Your task to perform on an android device: turn on translation in the chrome app Image 0: 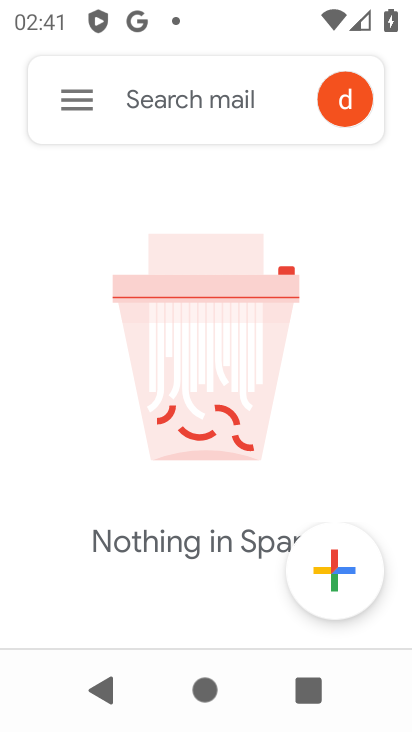
Step 0: press home button
Your task to perform on an android device: turn on translation in the chrome app Image 1: 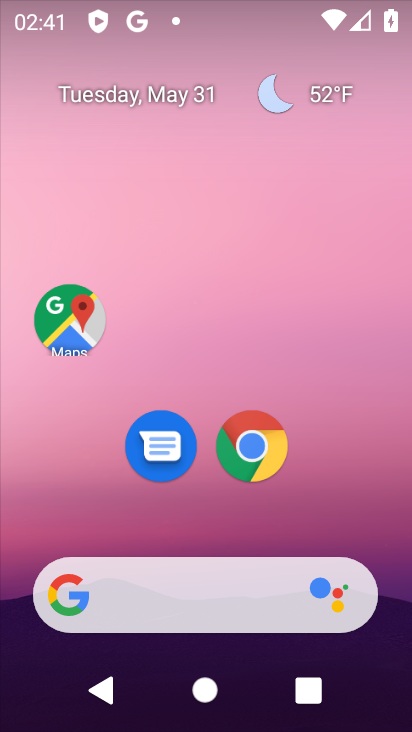
Step 1: click (250, 450)
Your task to perform on an android device: turn on translation in the chrome app Image 2: 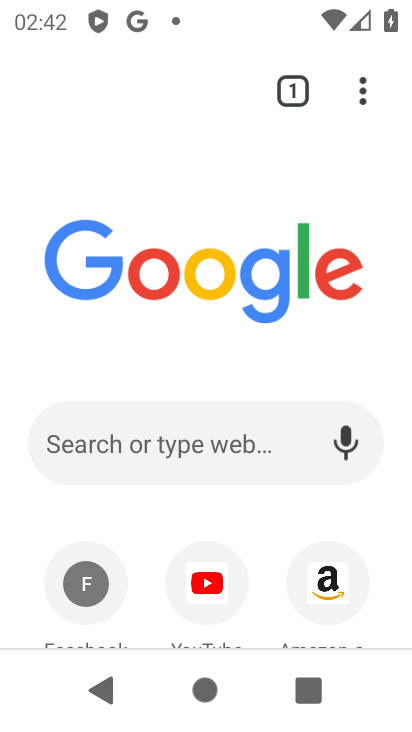
Step 2: click (362, 84)
Your task to perform on an android device: turn on translation in the chrome app Image 3: 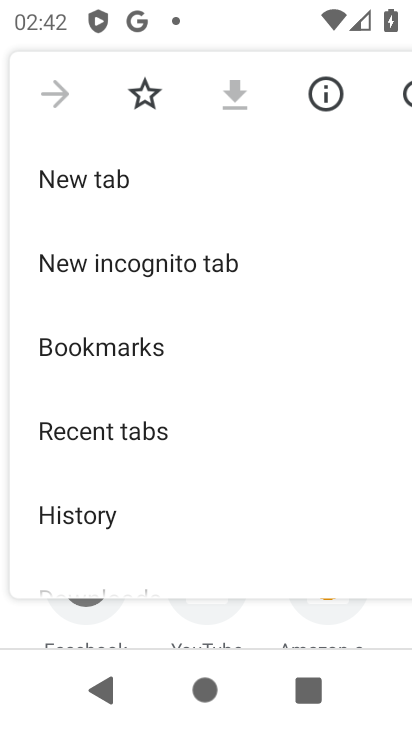
Step 3: drag from (113, 397) to (182, 316)
Your task to perform on an android device: turn on translation in the chrome app Image 4: 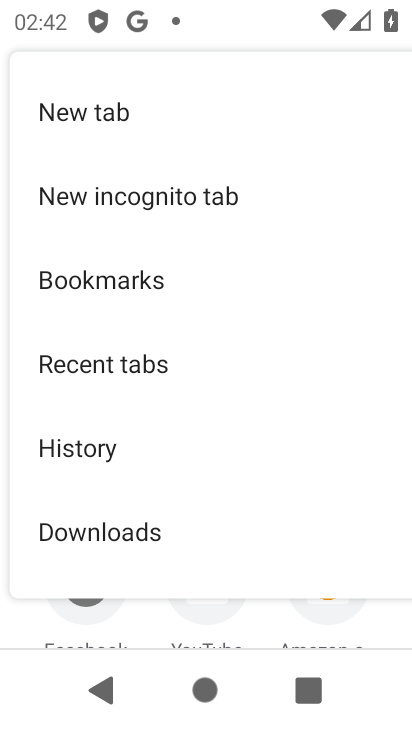
Step 4: drag from (110, 476) to (164, 409)
Your task to perform on an android device: turn on translation in the chrome app Image 5: 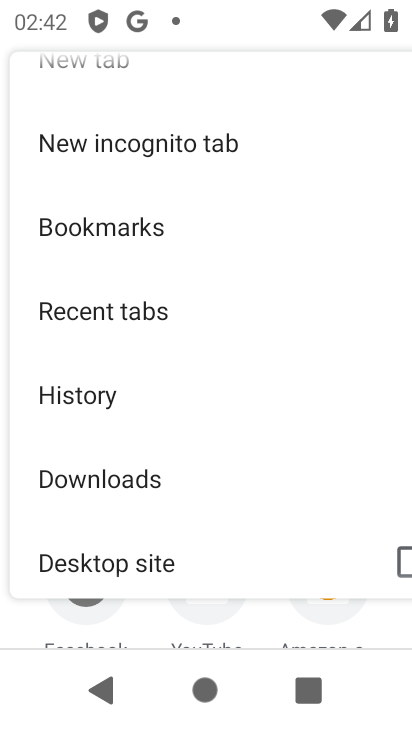
Step 5: drag from (104, 538) to (195, 433)
Your task to perform on an android device: turn on translation in the chrome app Image 6: 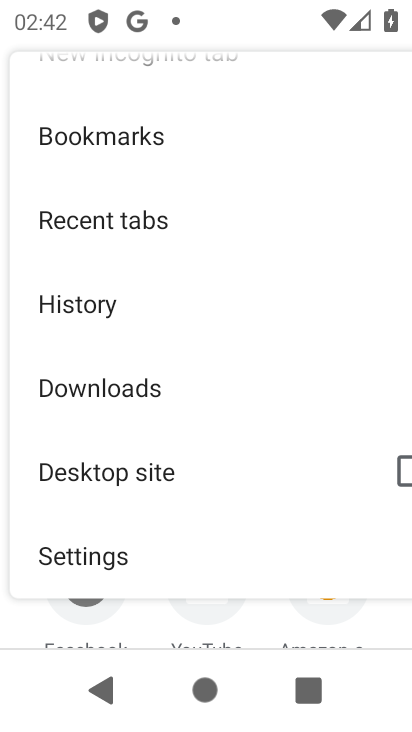
Step 6: drag from (130, 519) to (228, 398)
Your task to perform on an android device: turn on translation in the chrome app Image 7: 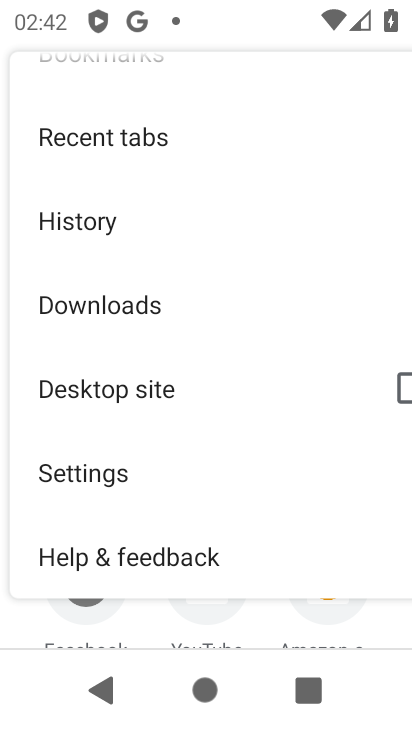
Step 7: click (103, 470)
Your task to perform on an android device: turn on translation in the chrome app Image 8: 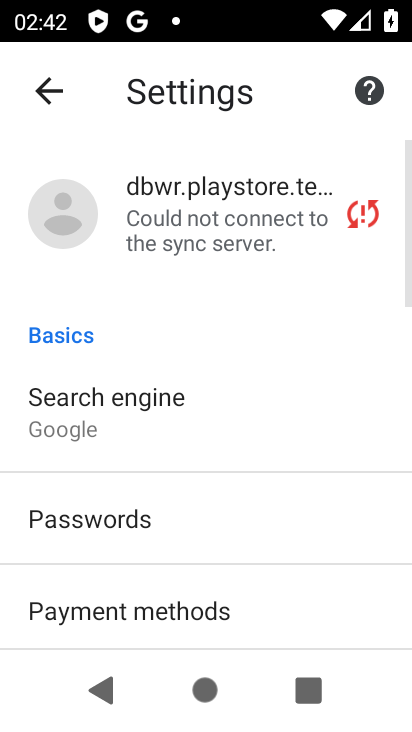
Step 8: drag from (127, 463) to (157, 399)
Your task to perform on an android device: turn on translation in the chrome app Image 9: 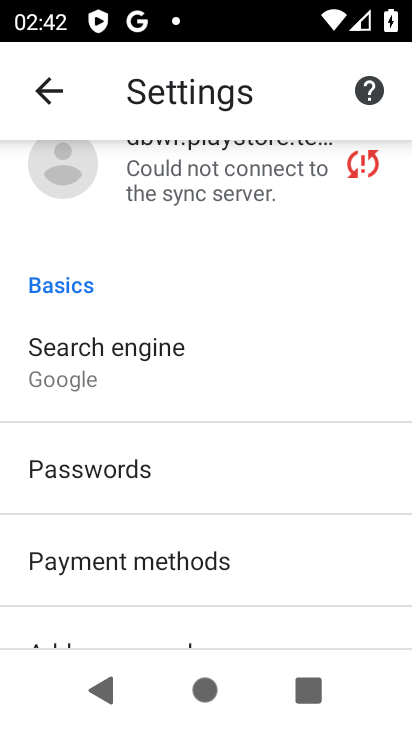
Step 9: drag from (129, 522) to (173, 426)
Your task to perform on an android device: turn on translation in the chrome app Image 10: 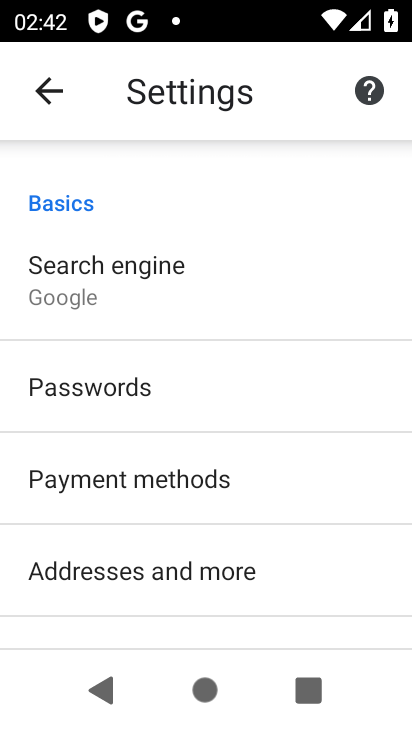
Step 10: drag from (157, 547) to (211, 454)
Your task to perform on an android device: turn on translation in the chrome app Image 11: 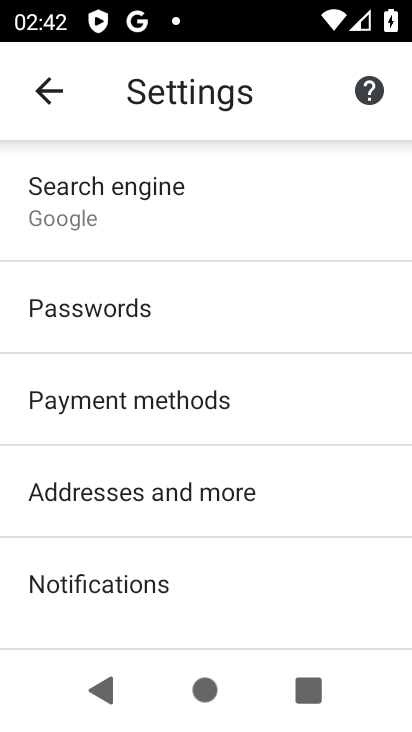
Step 11: drag from (131, 546) to (203, 449)
Your task to perform on an android device: turn on translation in the chrome app Image 12: 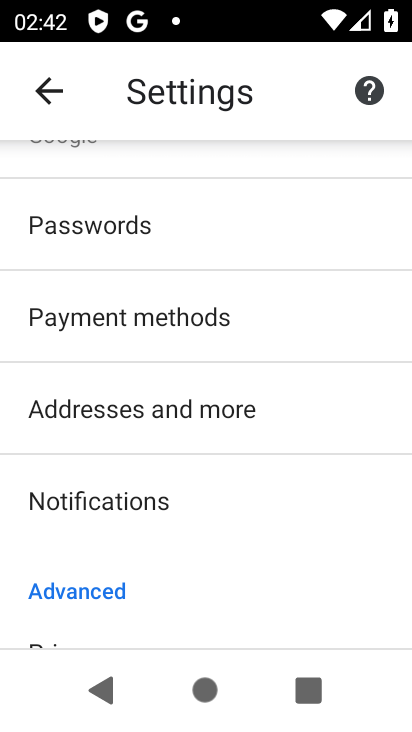
Step 12: drag from (113, 552) to (223, 432)
Your task to perform on an android device: turn on translation in the chrome app Image 13: 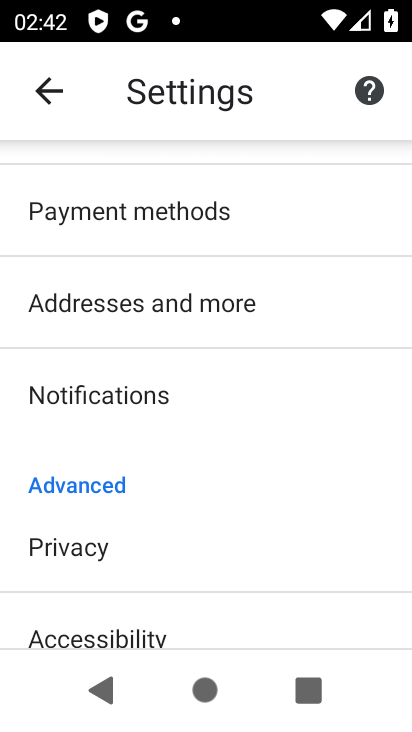
Step 13: drag from (109, 515) to (198, 415)
Your task to perform on an android device: turn on translation in the chrome app Image 14: 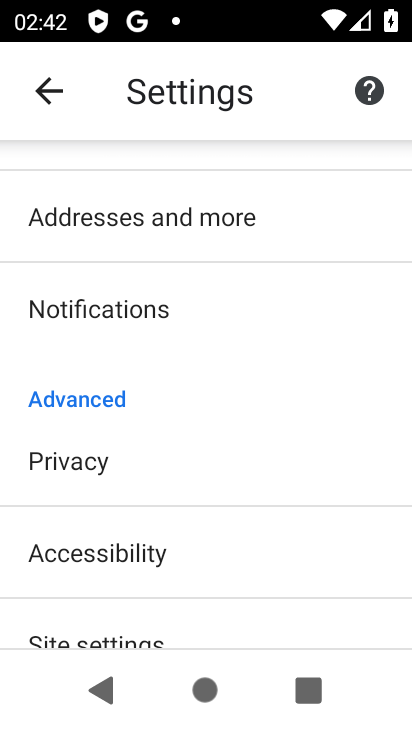
Step 14: drag from (123, 514) to (198, 413)
Your task to perform on an android device: turn on translation in the chrome app Image 15: 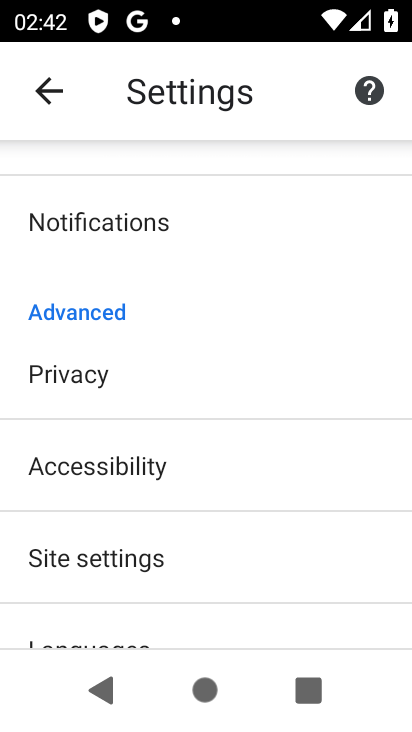
Step 15: drag from (87, 533) to (195, 417)
Your task to perform on an android device: turn on translation in the chrome app Image 16: 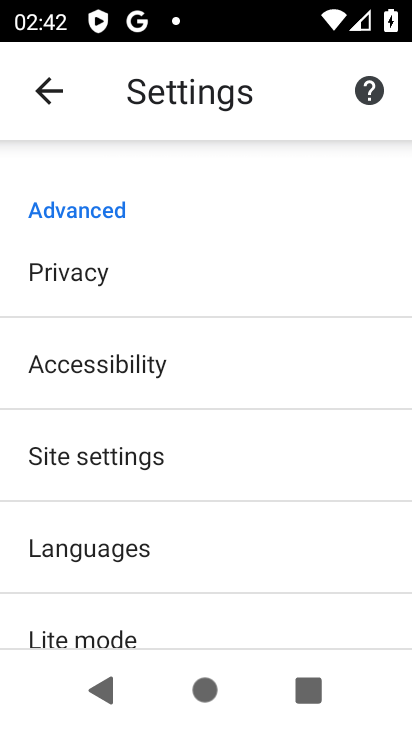
Step 16: click (103, 553)
Your task to perform on an android device: turn on translation in the chrome app Image 17: 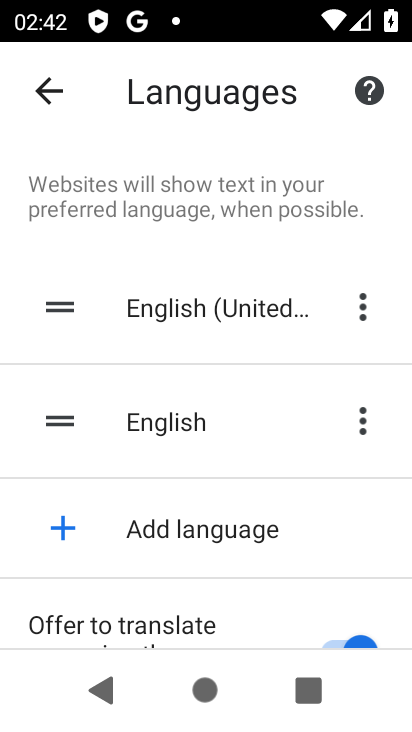
Step 17: task complete